Your task to perform on an android device: Open the Play Movies app and select the watchlist tab. Image 0: 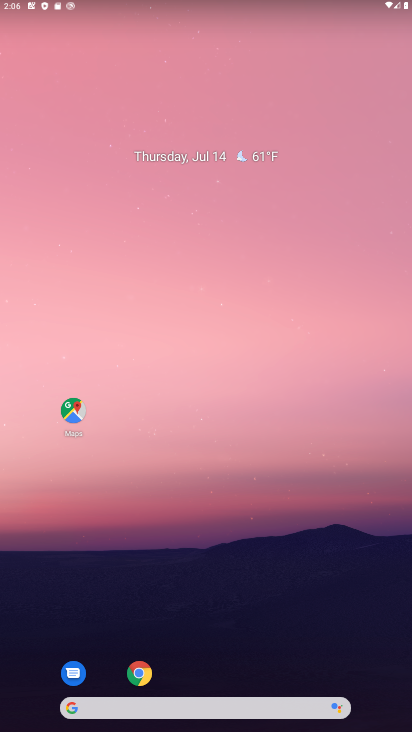
Step 0: drag from (194, 583) to (167, 114)
Your task to perform on an android device: Open the Play Movies app and select the watchlist tab. Image 1: 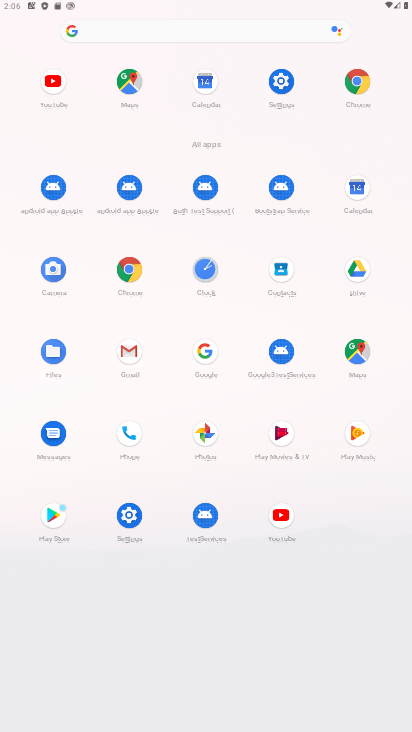
Step 1: click (282, 439)
Your task to perform on an android device: Open the Play Movies app and select the watchlist tab. Image 2: 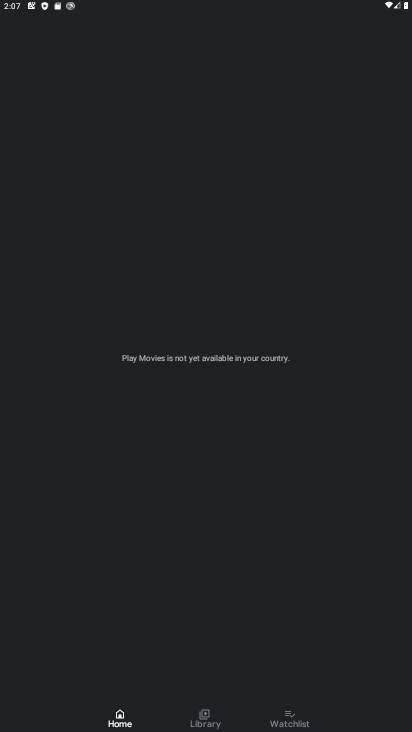
Step 2: click (282, 726)
Your task to perform on an android device: Open the Play Movies app and select the watchlist tab. Image 3: 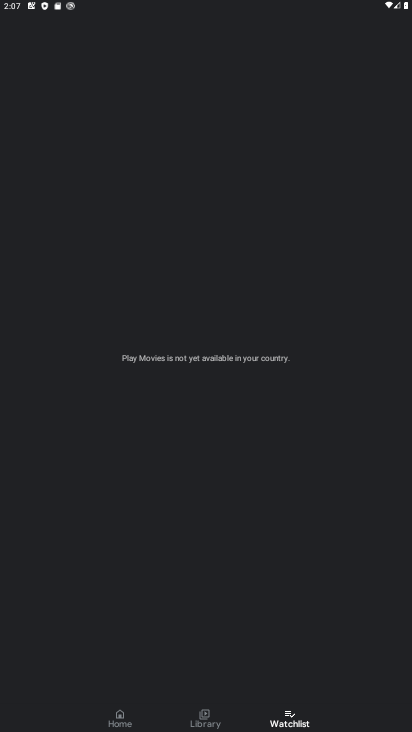
Step 3: task complete